Your task to perform on an android device: empty trash in google photos Image 0: 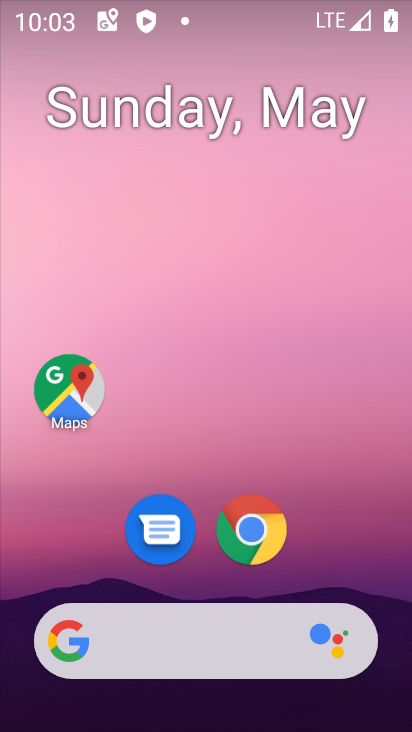
Step 0: drag from (375, 540) to (324, 271)
Your task to perform on an android device: empty trash in google photos Image 1: 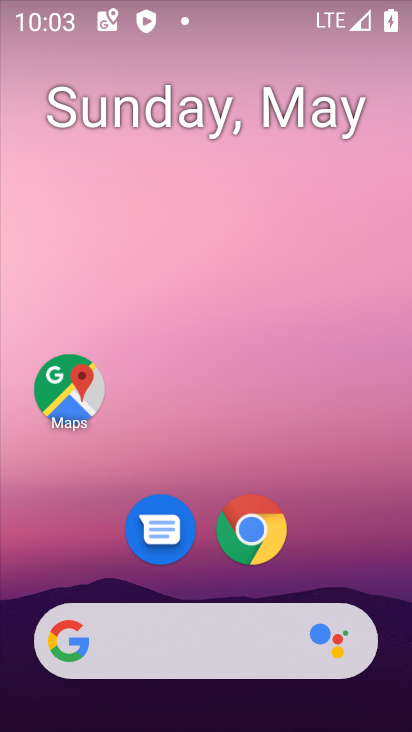
Step 1: drag from (329, 561) to (317, 518)
Your task to perform on an android device: empty trash in google photos Image 2: 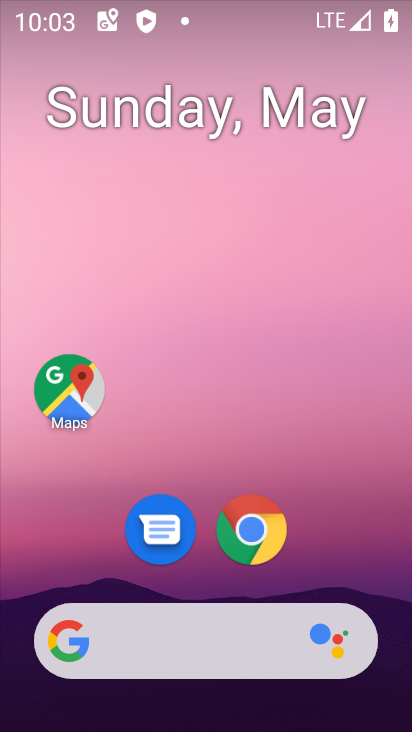
Step 2: drag from (350, 558) to (322, 93)
Your task to perform on an android device: empty trash in google photos Image 3: 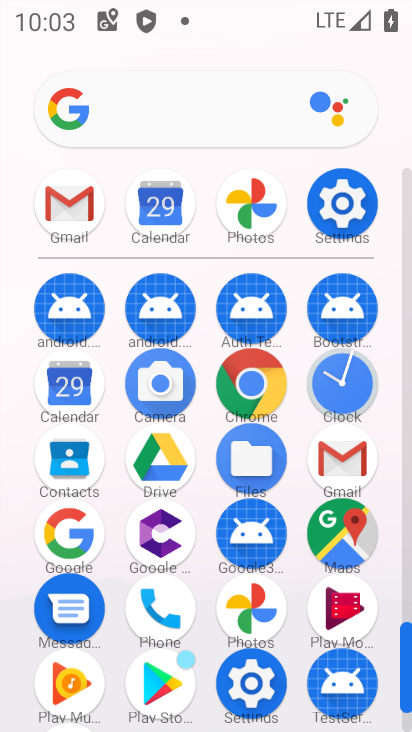
Step 3: click (243, 256)
Your task to perform on an android device: empty trash in google photos Image 4: 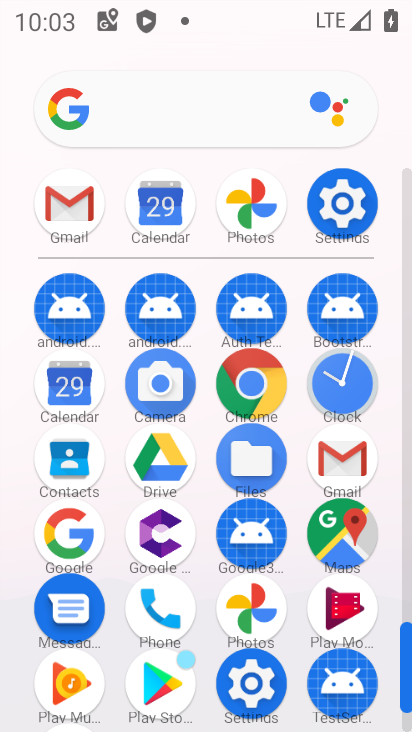
Step 4: task complete